Your task to perform on an android device: Go to privacy settings Image 0: 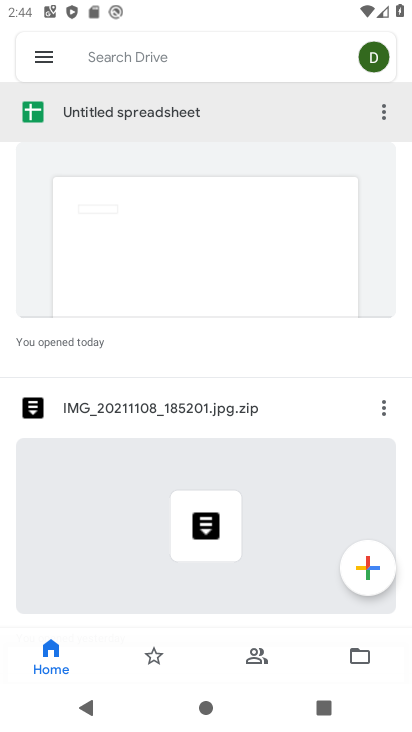
Step 0: press home button
Your task to perform on an android device: Go to privacy settings Image 1: 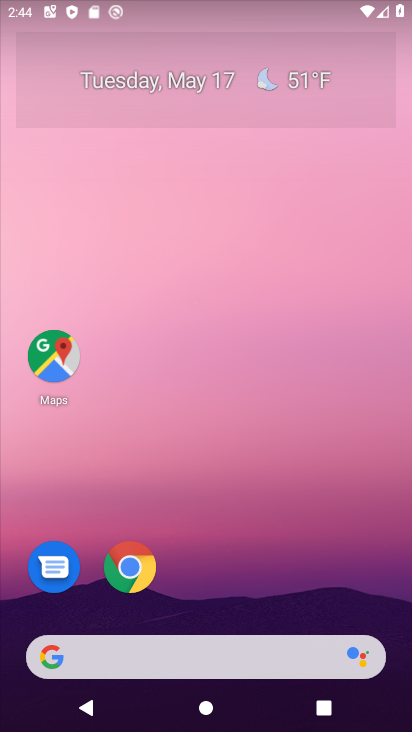
Step 1: drag from (215, 651) to (186, 87)
Your task to perform on an android device: Go to privacy settings Image 2: 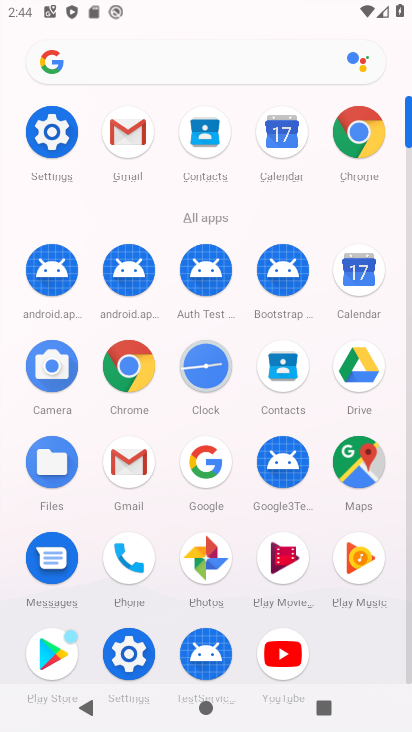
Step 2: click (125, 653)
Your task to perform on an android device: Go to privacy settings Image 3: 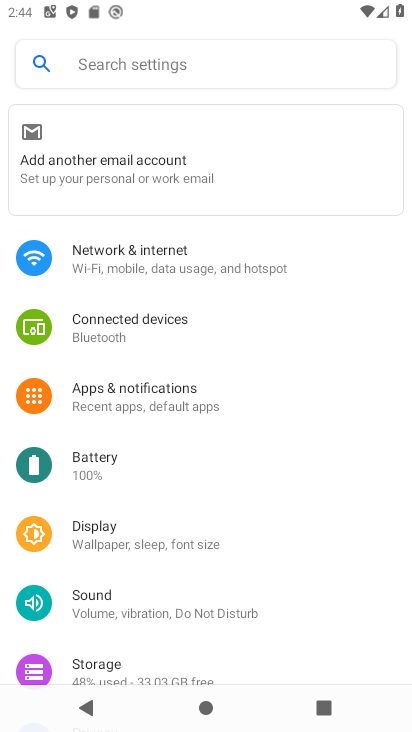
Step 3: drag from (134, 524) to (274, 70)
Your task to perform on an android device: Go to privacy settings Image 4: 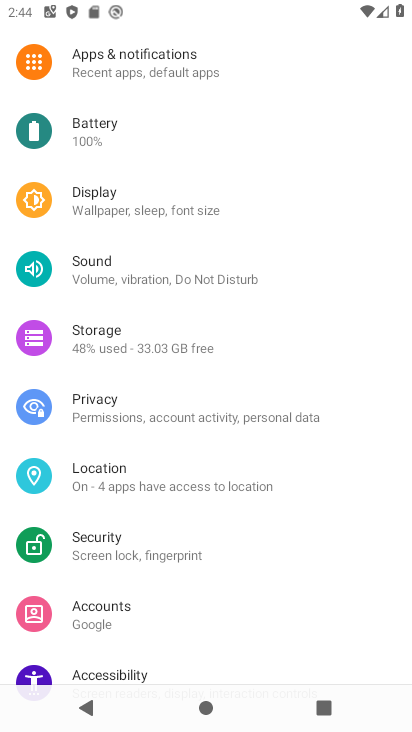
Step 4: click (86, 399)
Your task to perform on an android device: Go to privacy settings Image 5: 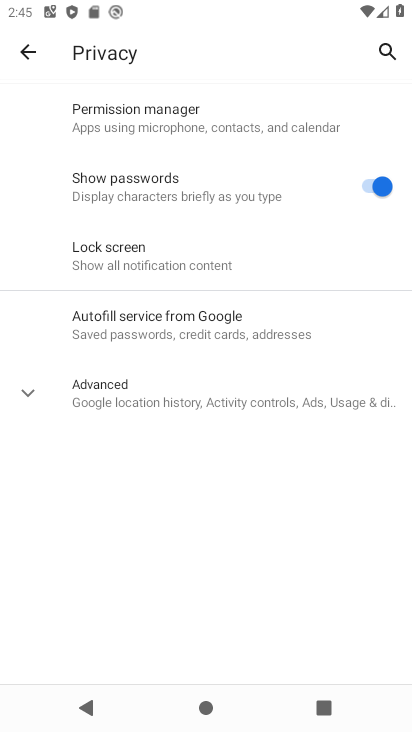
Step 5: task complete